Your task to perform on an android device: choose inbox layout in the gmail app Image 0: 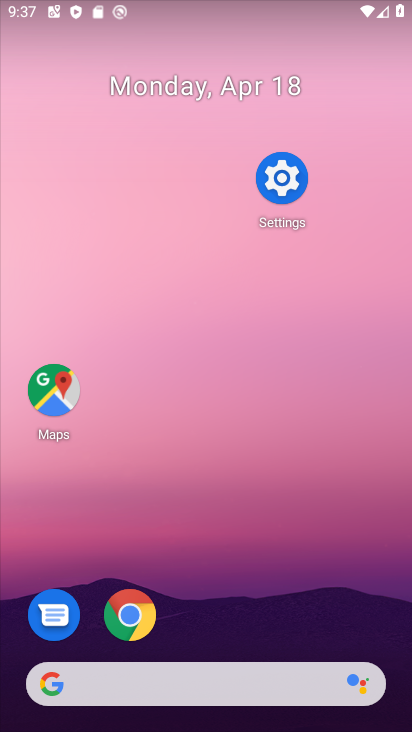
Step 0: drag from (224, 704) to (128, 380)
Your task to perform on an android device: choose inbox layout in the gmail app Image 1: 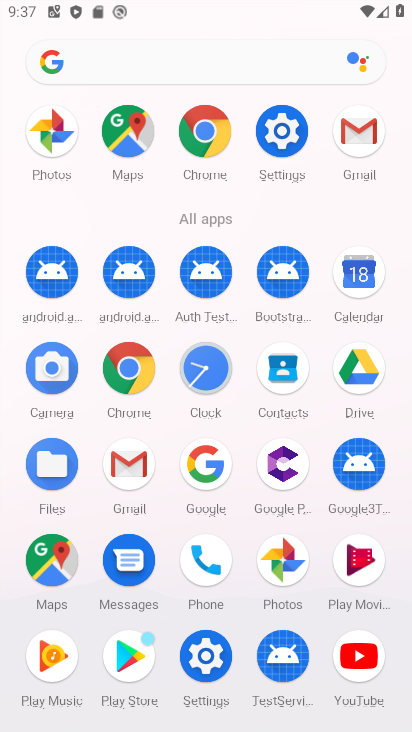
Step 1: click (360, 133)
Your task to perform on an android device: choose inbox layout in the gmail app Image 2: 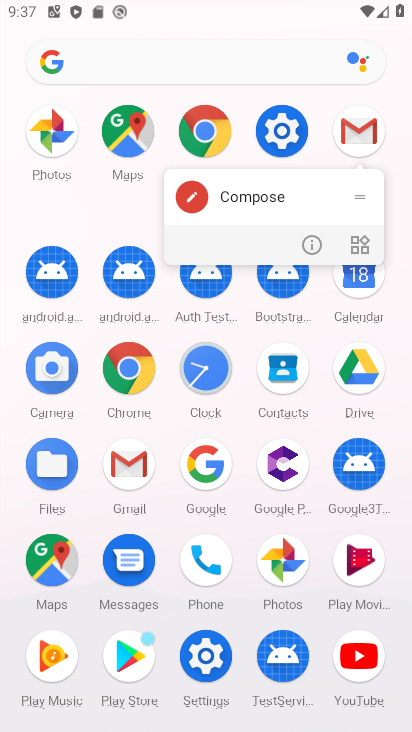
Step 2: click (360, 133)
Your task to perform on an android device: choose inbox layout in the gmail app Image 3: 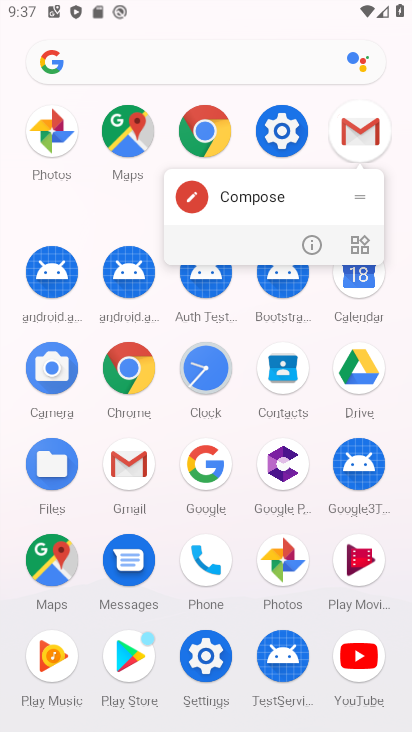
Step 3: click (360, 132)
Your task to perform on an android device: choose inbox layout in the gmail app Image 4: 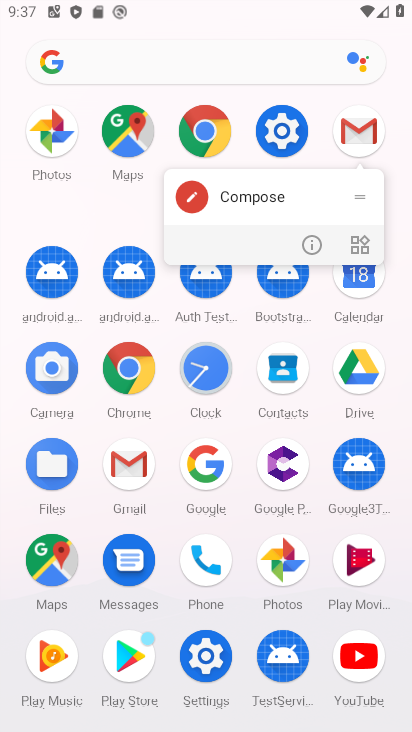
Step 4: click (361, 131)
Your task to perform on an android device: choose inbox layout in the gmail app Image 5: 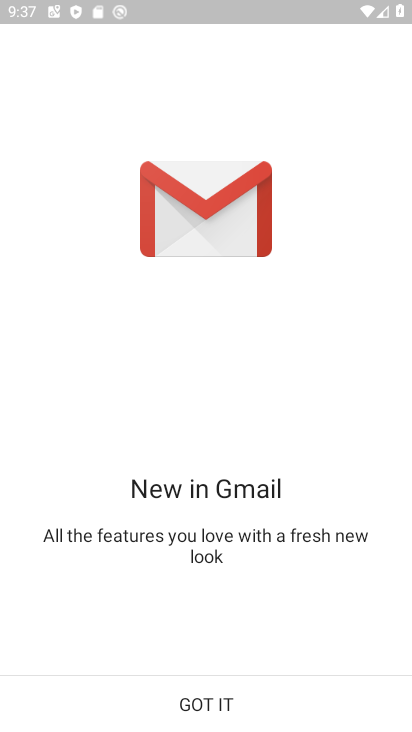
Step 5: click (188, 696)
Your task to perform on an android device: choose inbox layout in the gmail app Image 6: 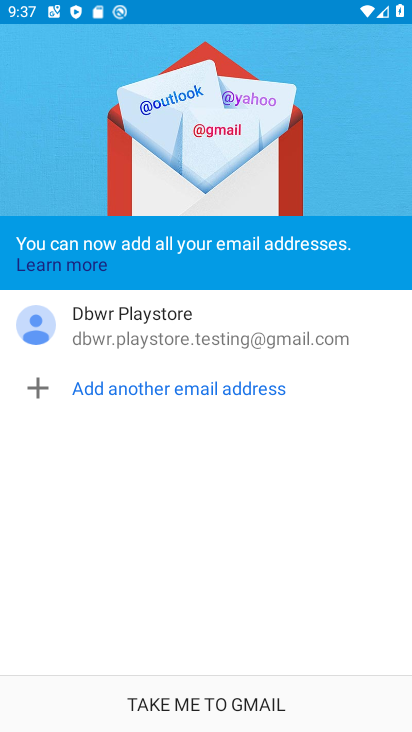
Step 6: click (143, 326)
Your task to perform on an android device: choose inbox layout in the gmail app Image 7: 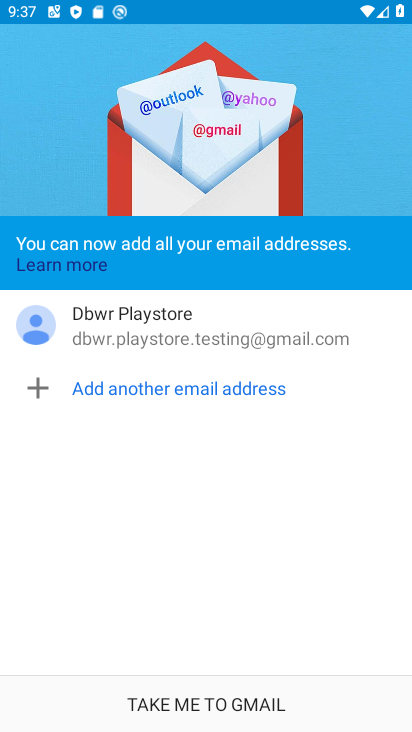
Step 7: click (229, 701)
Your task to perform on an android device: choose inbox layout in the gmail app Image 8: 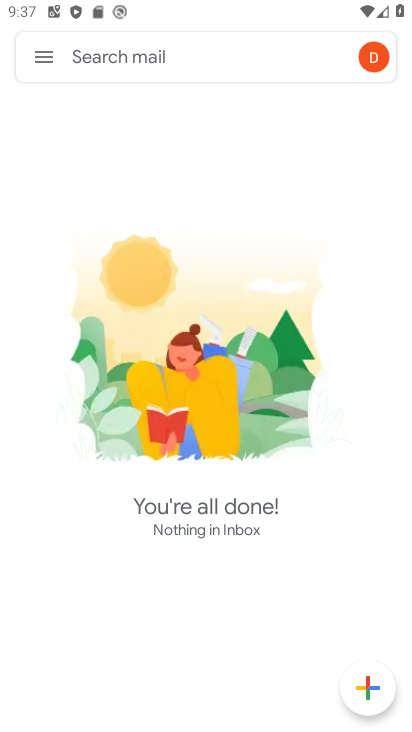
Step 8: click (47, 58)
Your task to perform on an android device: choose inbox layout in the gmail app Image 9: 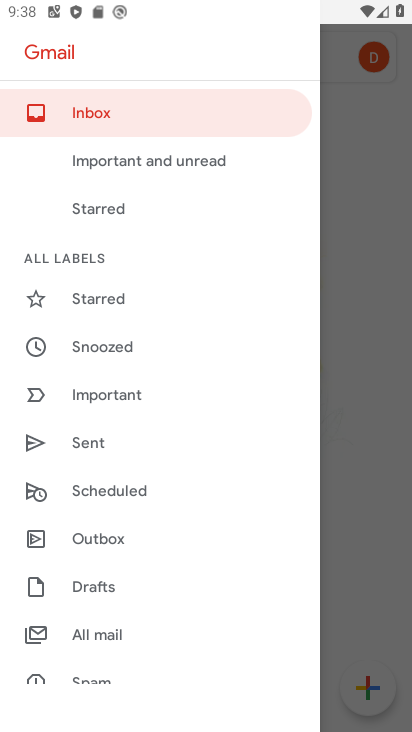
Step 9: click (105, 626)
Your task to perform on an android device: choose inbox layout in the gmail app Image 10: 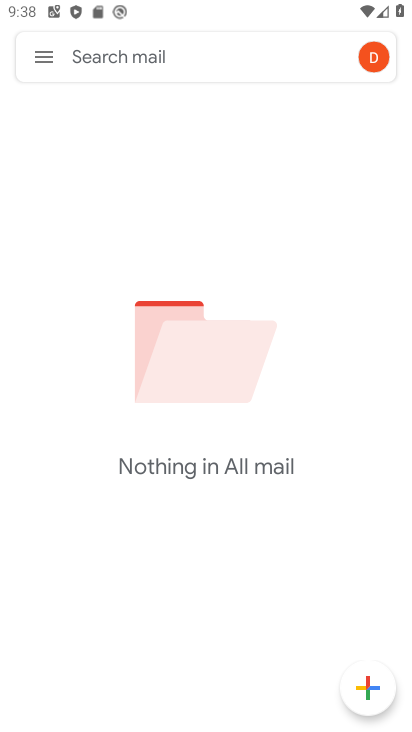
Step 10: task complete